Your task to perform on an android device: open chrome and create a bookmark for the current page Image 0: 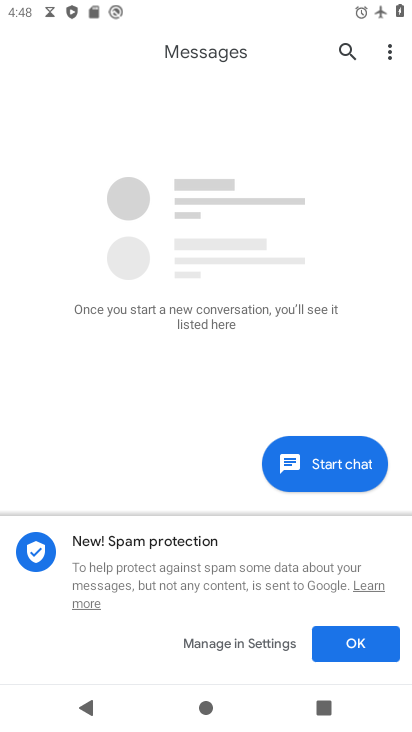
Step 0: press home button
Your task to perform on an android device: open chrome and create a bookmark for the current page Image 1: 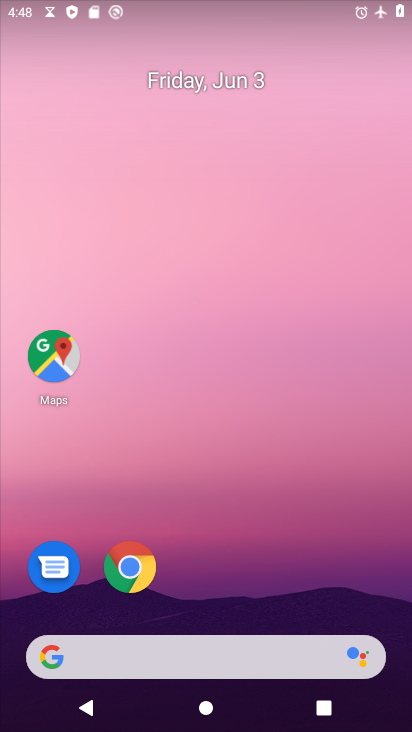
Step 1: click (131, 567)
Your task to perform on an android device: open chrome and create a bookmark for the current page Image 2: 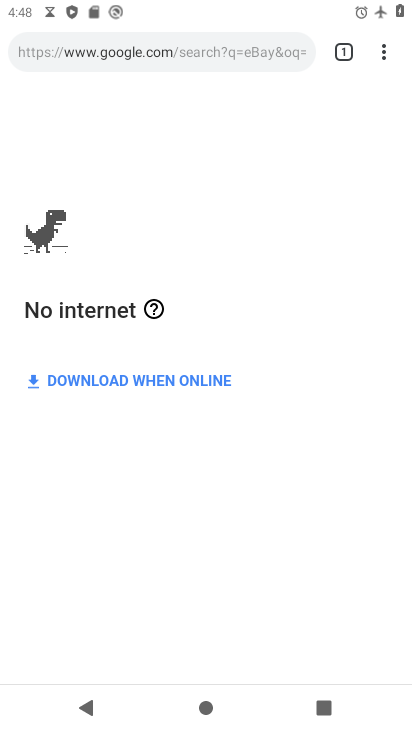
Step 2: click (384, 51)
Your task to perform on an android device: open chrome and create a bookmark for the current page Image 3: 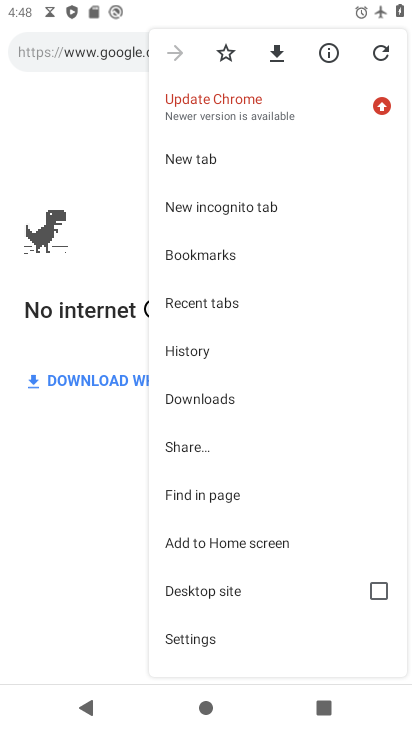
Step 3: click (225, 53)
Your task to perform on an android device: open chrome and create a bookmark for the current page Image 4: 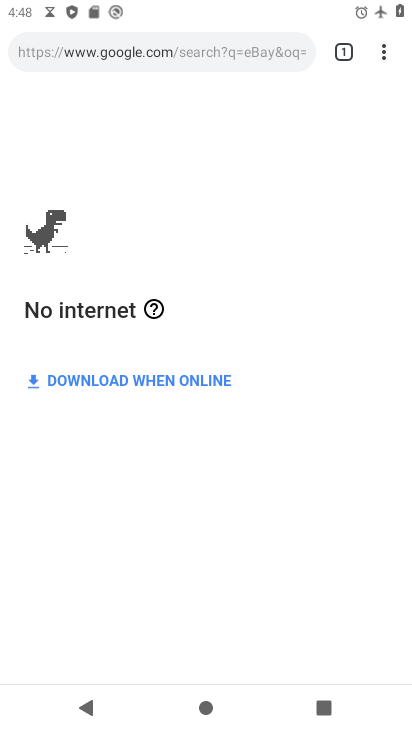
Step 4: task complete